Your task to perform on an android device: toggle javascript in the chrome app Image 0: 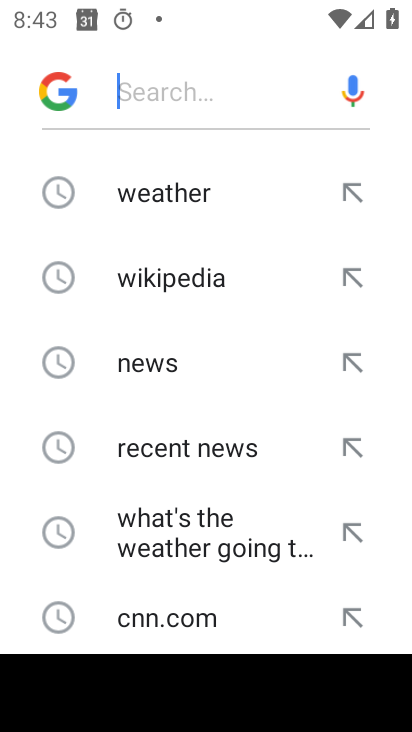
Step 0: press home button
Your task to perform on an android device: toggle javascript in the chrome app Image 1: 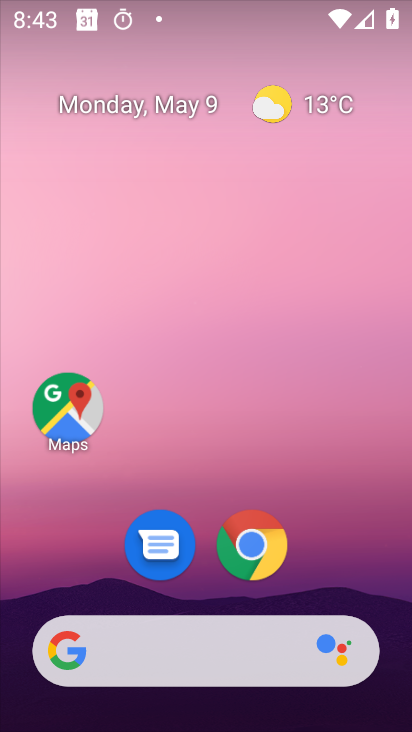
Step 1: drag from (373, 591) to (371, 83)
Your task to perform on an android device: toggle javascript in the chrome app Image 2: 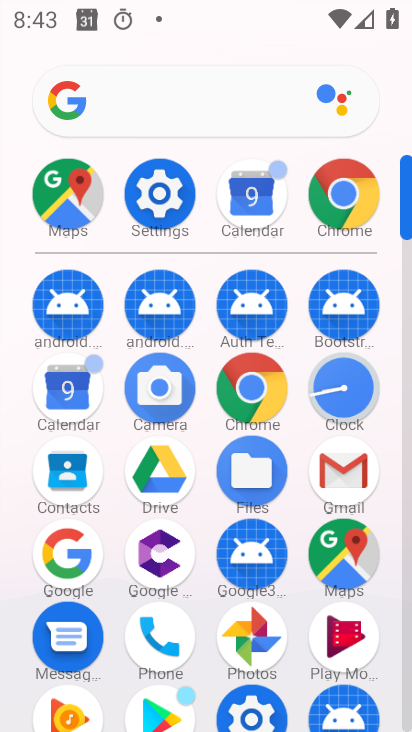
Step 2: click (373, 180)
Your task to perform on an android device: toggle javascript in the chrome app Image 3: 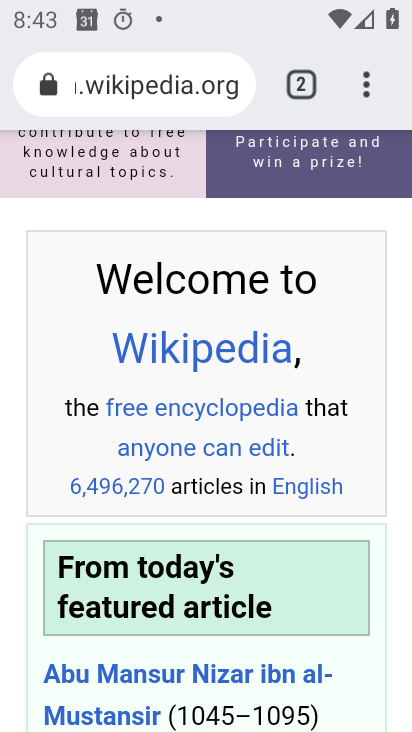
Step 3: drag from (370, 181) to (394, 676)
Your task to perform on an android device: toggle javascript in the chrome app Image 4: 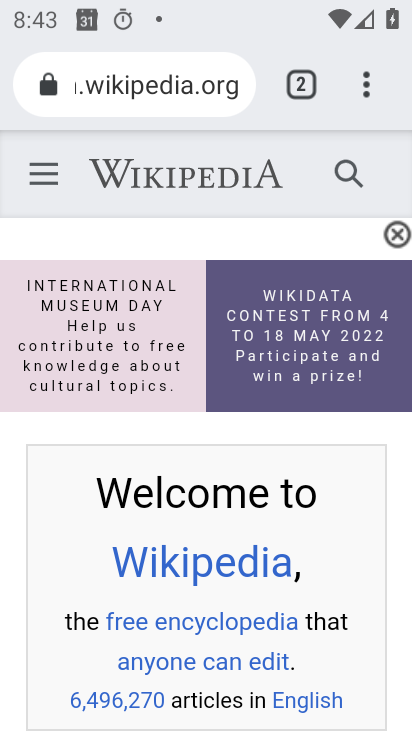
Step 4: drag from (364, 86) to (88, 599)
Your task to perform on an android device: toggle javascript in the chrome app Image 5: 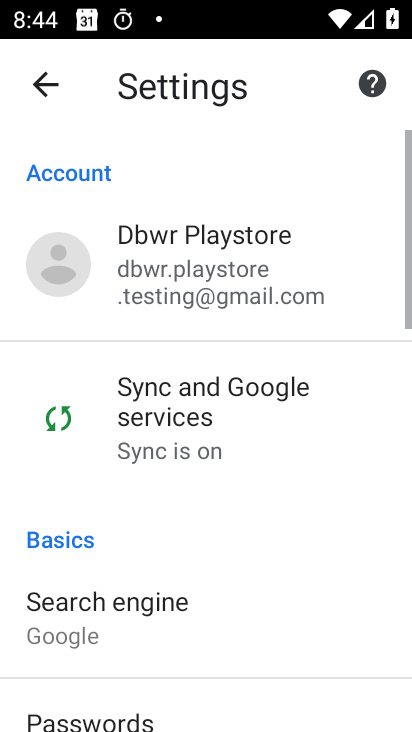
Step 5: drag from (259, 646) to (380, 111)
Your task to perform on an android device: toggle javascript in the chrome app Image 6: 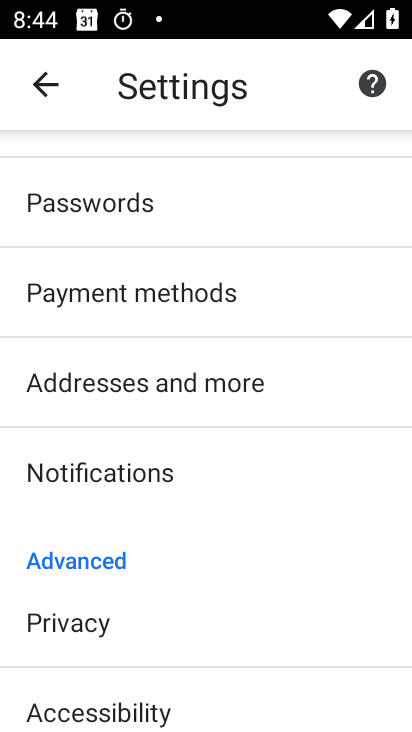
Step 6: drag from (246, 657) to (301, 222)
Your task to perform on an android device: toggle javascript in the chrome app Image 7: 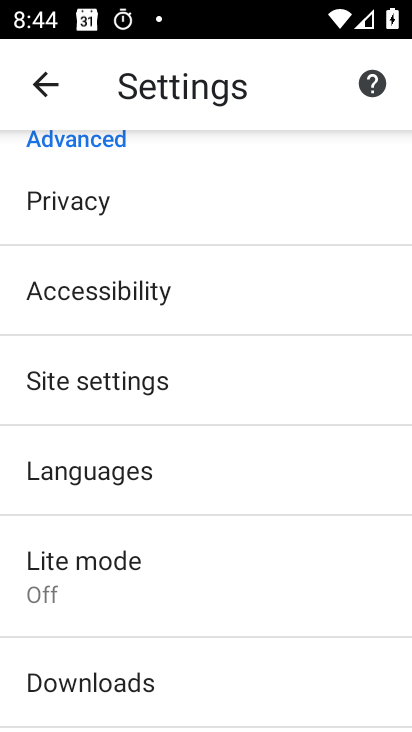
Step 7: click (211, 406)
Your task to perform on an android device: toggle javascript in the chrome app Image 8: 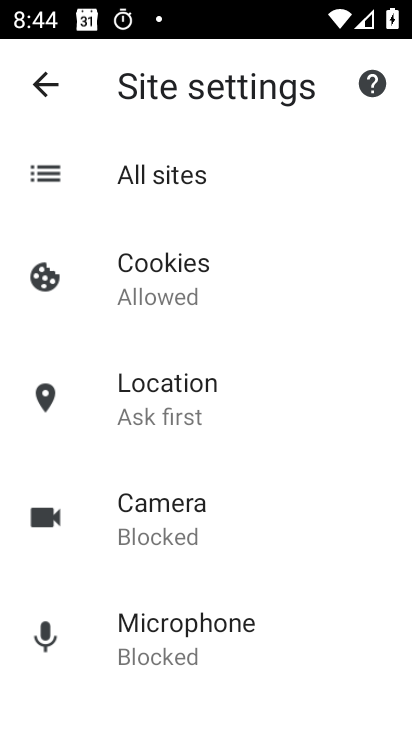
Step 8: drag from (288, 634) to (408, 317)
Your task to perform on an android device: toggle javascript in the chrome app Image 9: 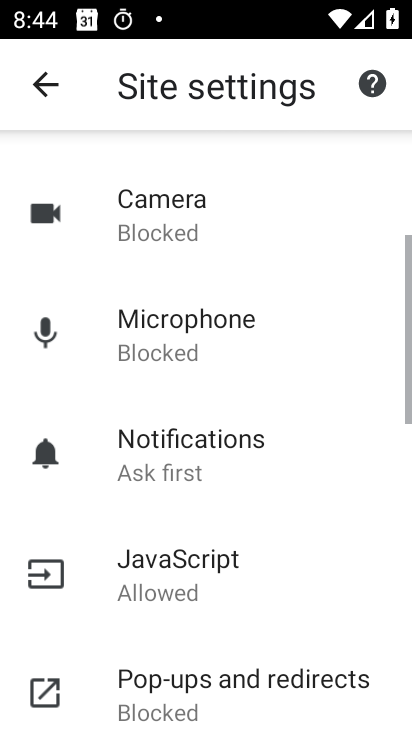
Step 9: click (223, 459)
Your task to perform on an android device: toggle javascript in the chrome app Image 10: 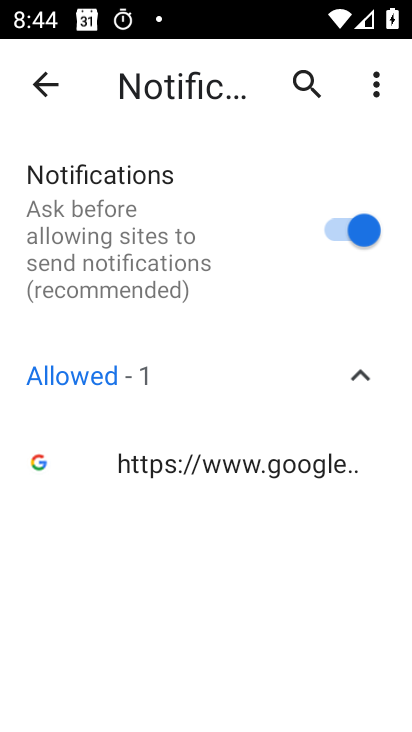
Step 10: click (328, 220)
Your task to perform on an android device: toggle javascript in the chrome app Image 11: 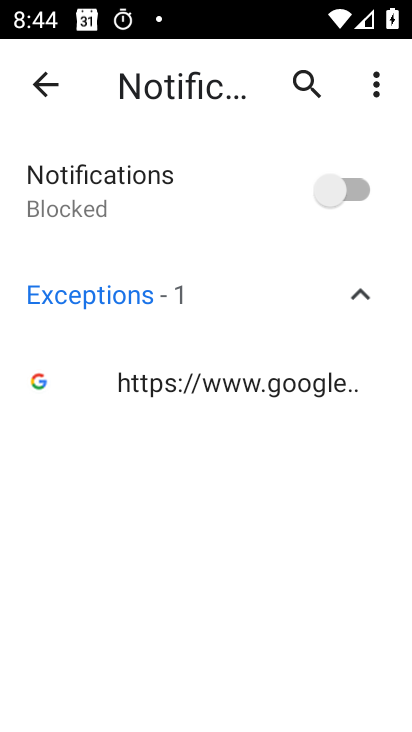
Step 11: task complete